Your task to perform on an android device: search for starred emails in the gmail app Image 0: 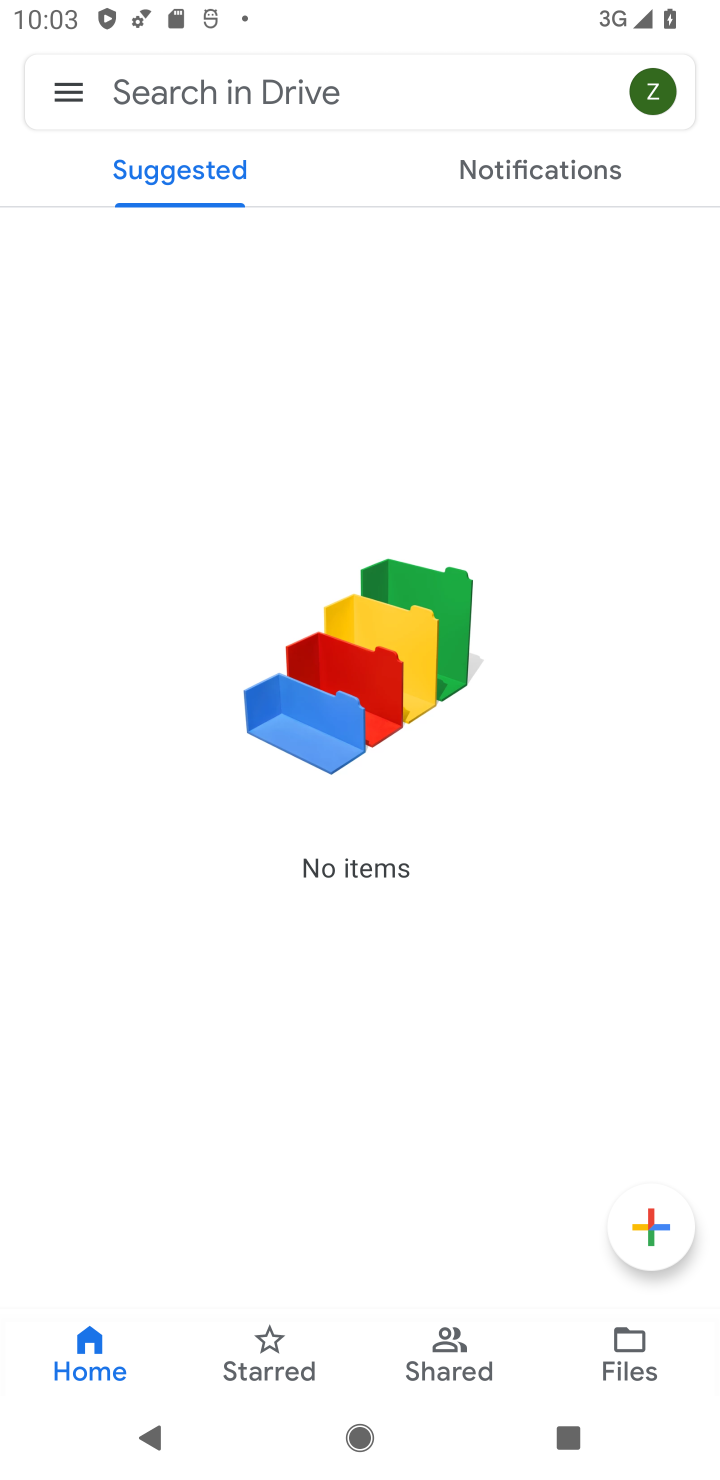
Step 0: press home button
Your task to perform on an android device: search for starred emails in the gmail app Image 1: 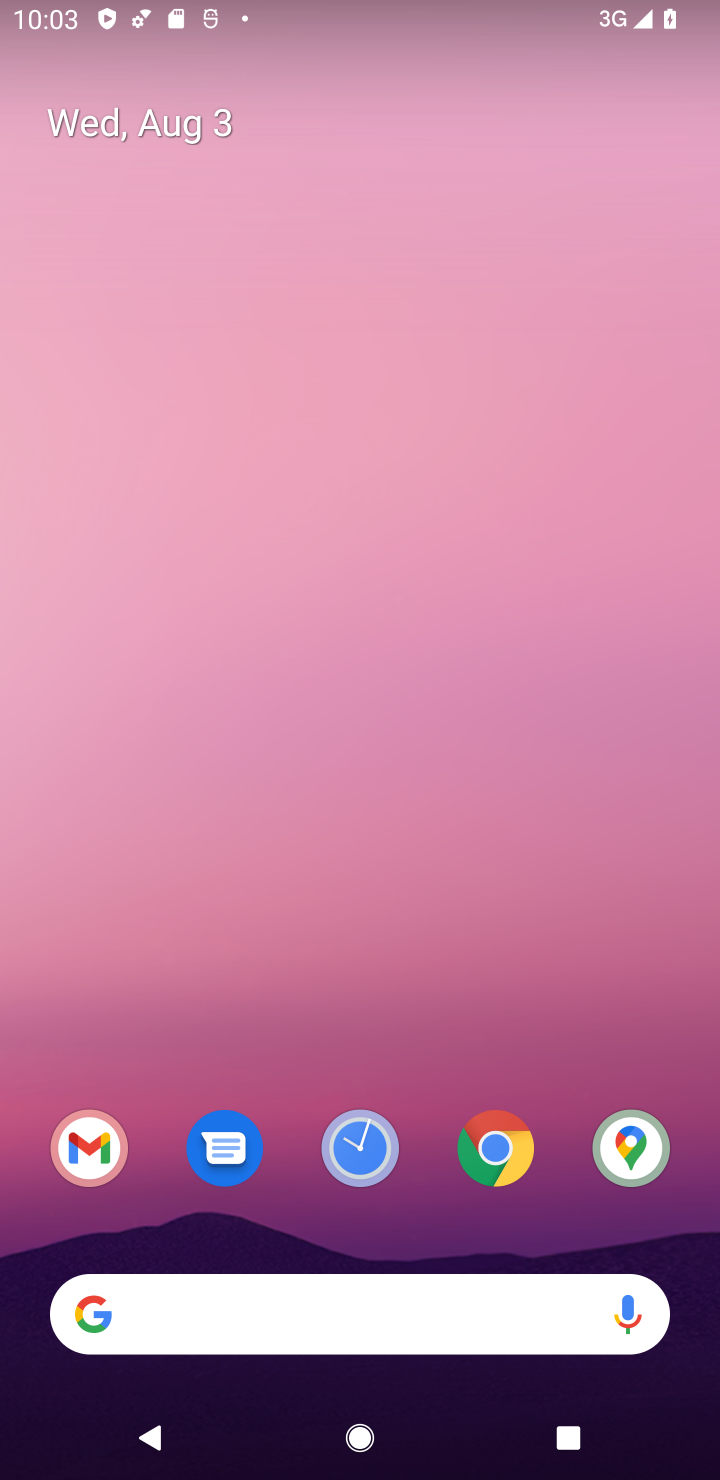
Step 1: drag from (496, 946) to (487, 344)
Your task to perform on an android device: search for starred emails in the gmail app Image 2: 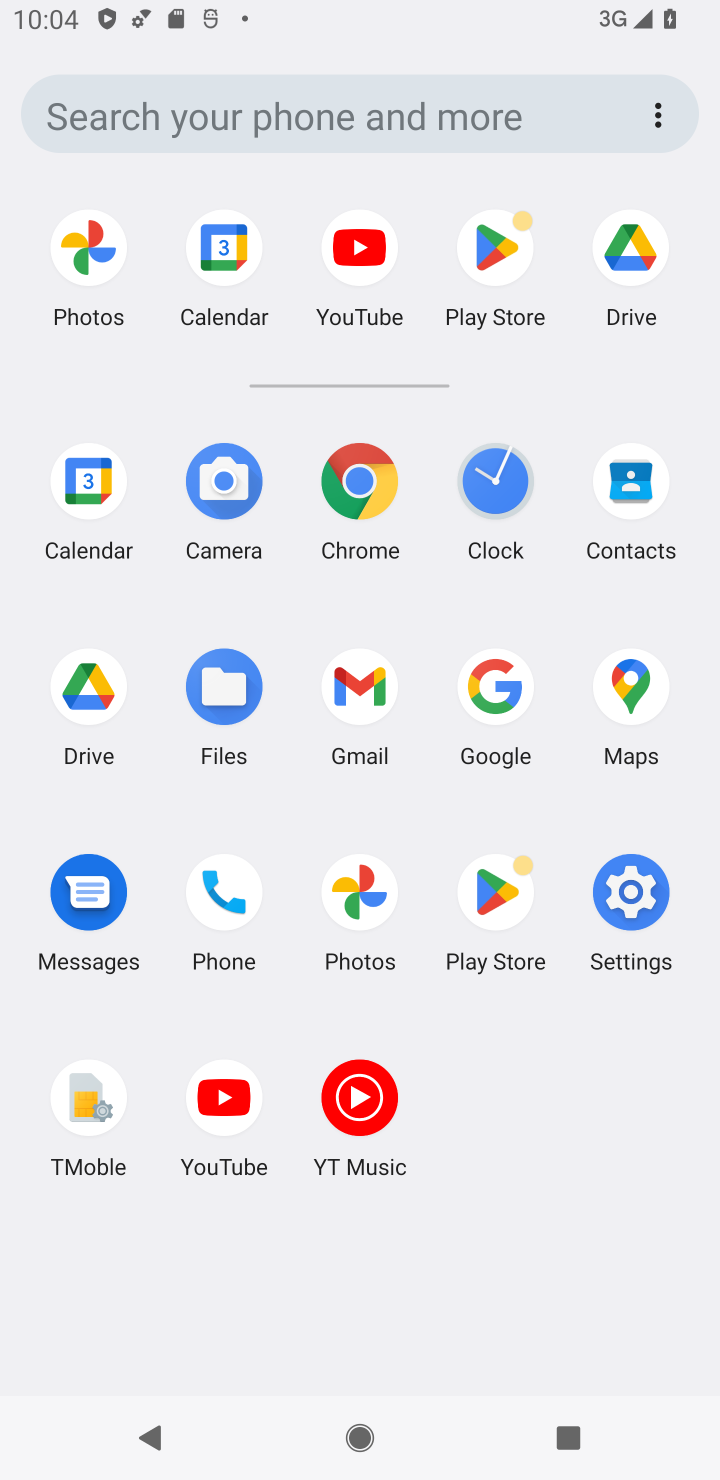
Step 2: click (378, 684)
Your task to perform on an android device: search for starred emails in the gmail app Image 3: 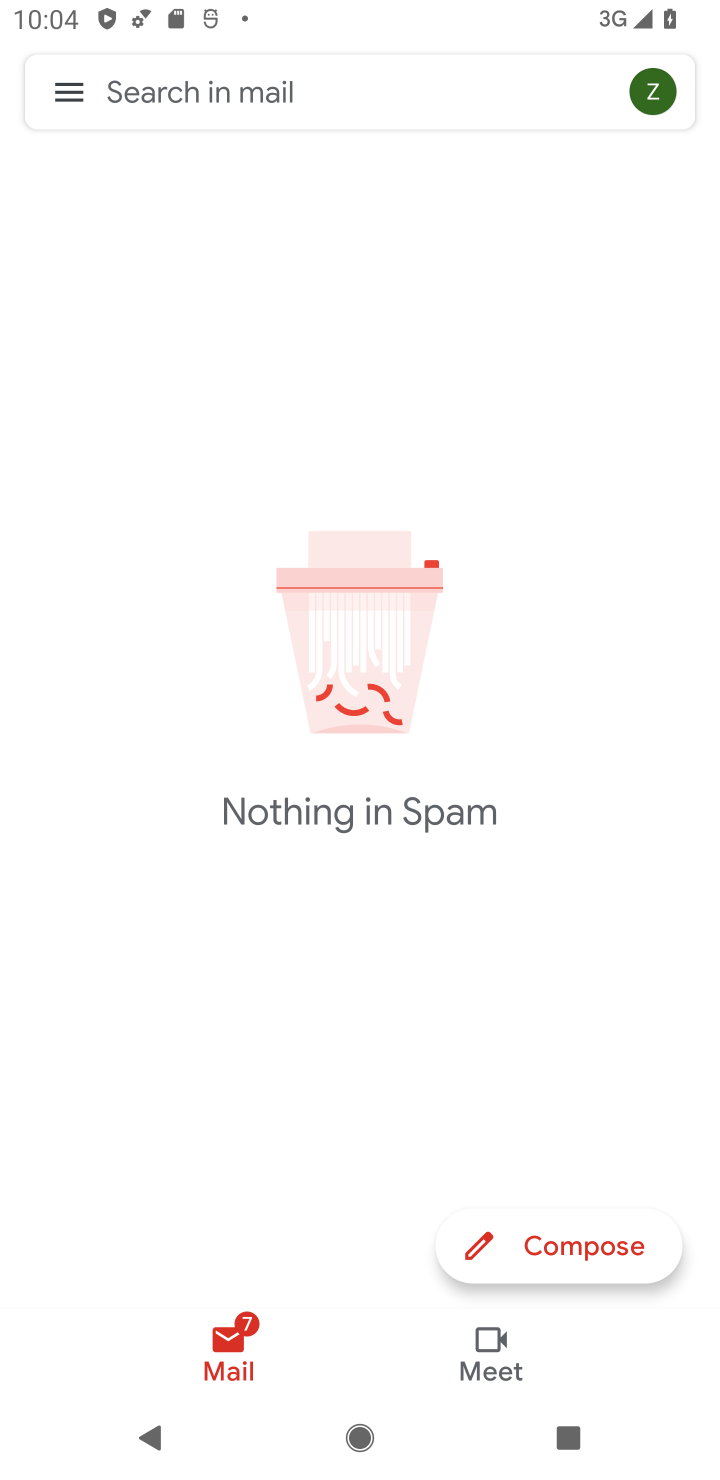
Step 3: task complete